Your task to perform on an android device: What's on my calendar today? Image 0: 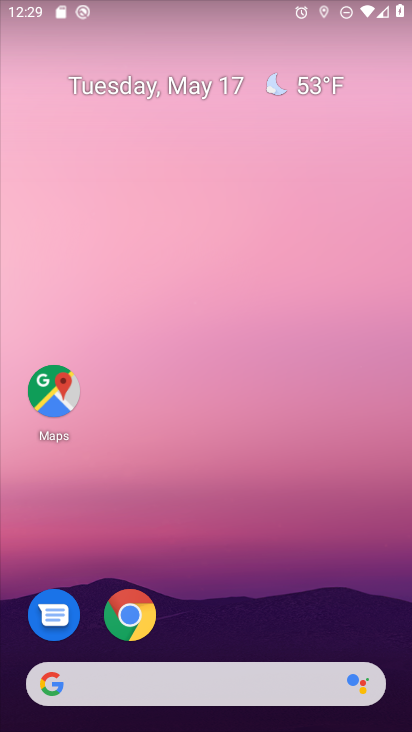
Step 0: drag from (249, 581) to (255, 267)
Your task to perform on an android device: What's on my calendar today? Image 1: 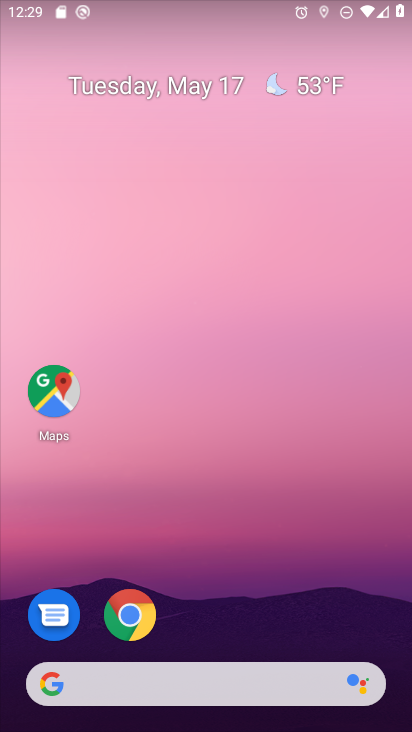
Step 1: drag from (198, 653) to (197, 235)
Your task to perform on an android device: What's on my calendar today? Image 2: 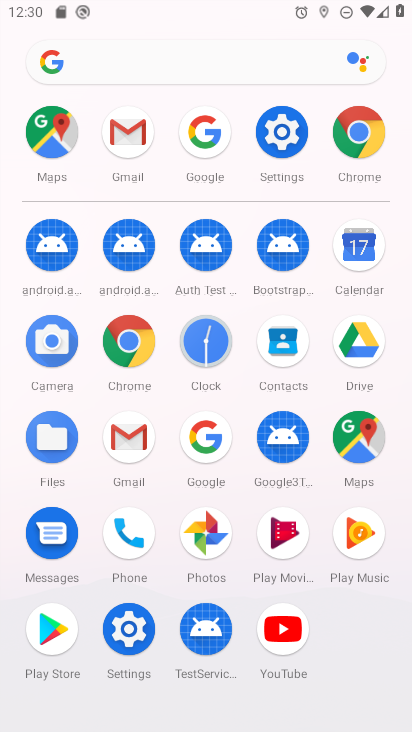
Step 2: click (360, 254)
Your task to perform on an android device: What's on my calendar today? Image 3: 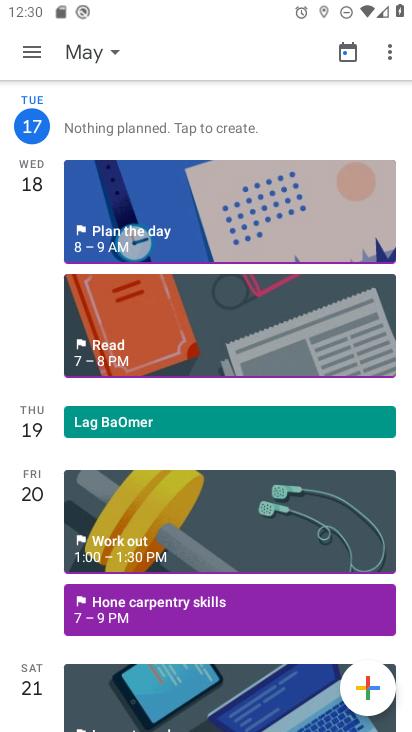
Step 3: drag from (175, 191) to (114, 543)
Your task to perform on an android device: What's on my calendar today? Image 4: 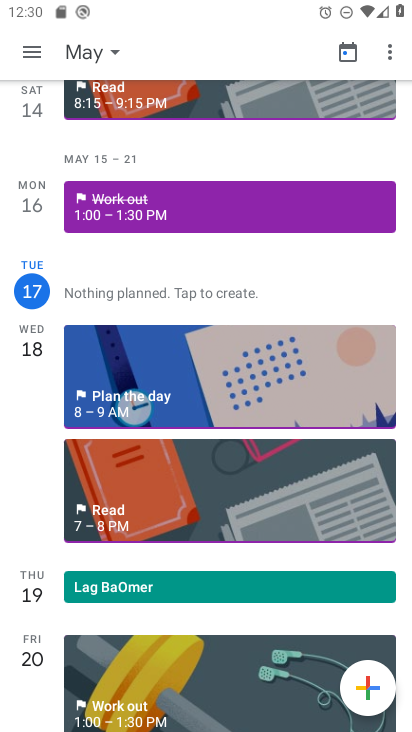
Step 4: click (178, 298)
Your task to perform on an android device: What's on my calendar today? Image 5: 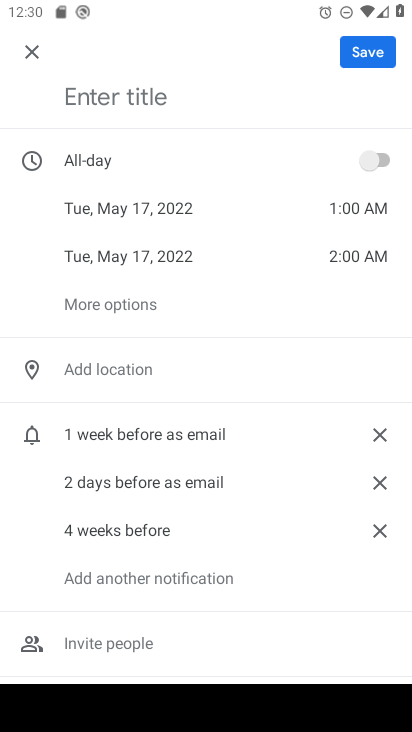
Step 5: task complete